Your task to perform on an android device: check android version Image 0: 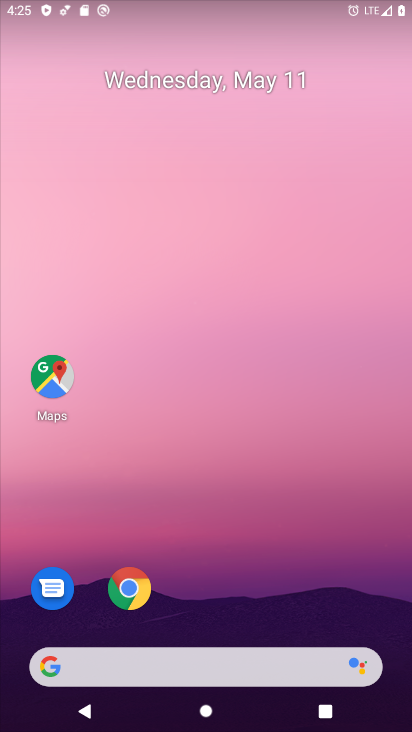
Step 0: drag from (306, 604) to (311, 128)
Your task to perform on an android device: check android version Image 1: 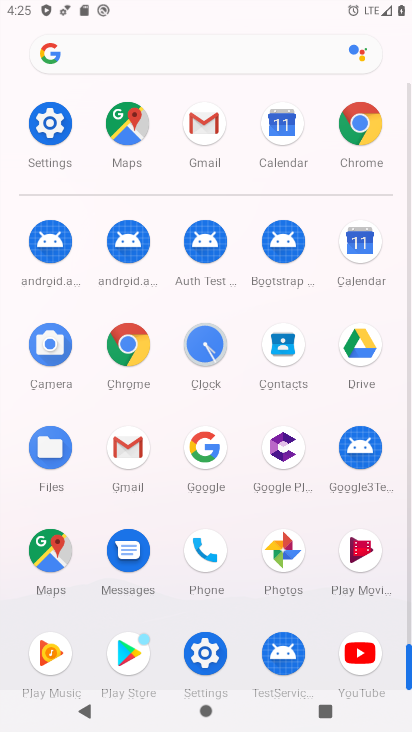
Step 1: click (62, 131)
Your task to perform on an android device: check android version Image 2: 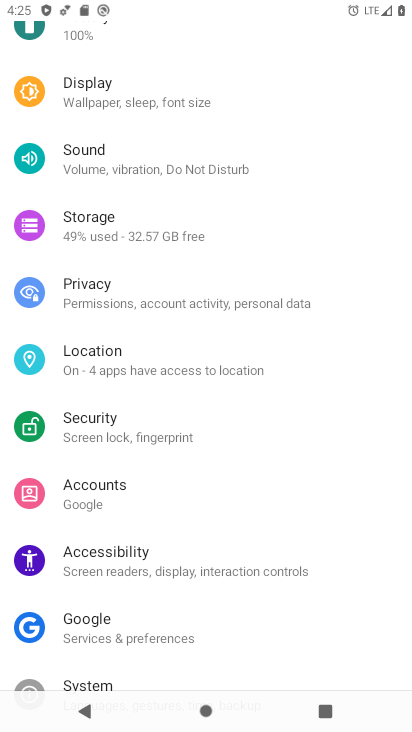
Step 2: drag from (236, 597) to (229, 103)
Your task to perform on an android device: check android version Image 3: 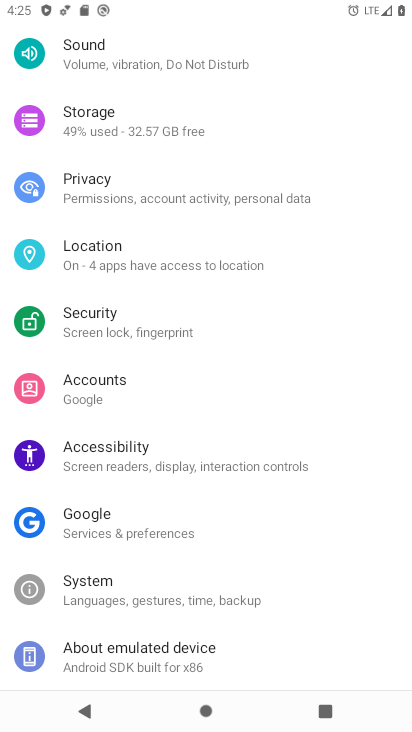
Step 3: click (108, 671)
Your task to perform on an android device: check android version Image 4: 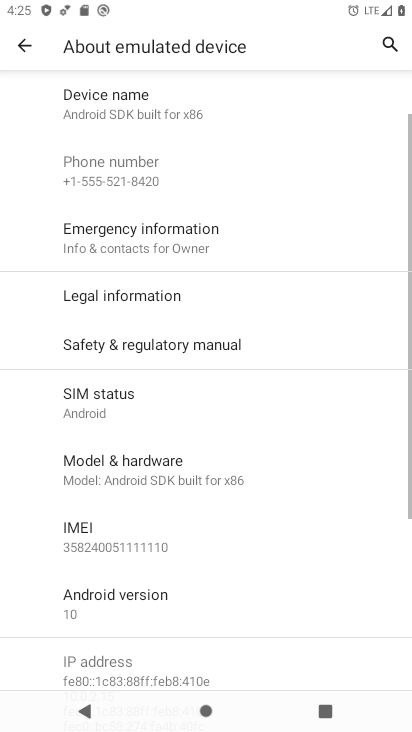
Step 4: drag from (108, 671) to (112, 473)
Your task to perform on an android device: check android version Image 5: 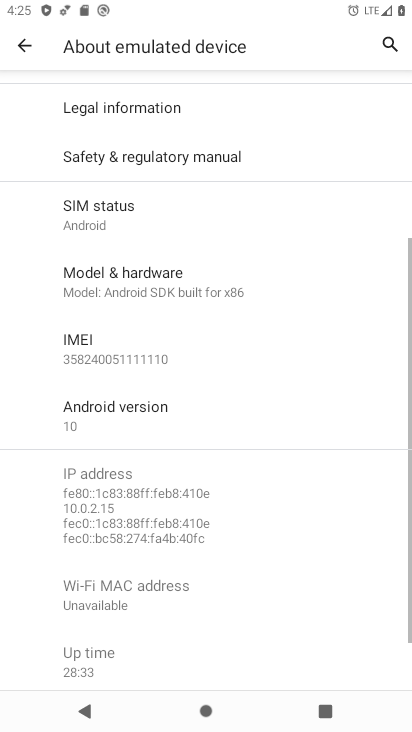
Step 5: click (105, 433)
Your task to perform on an android device: check android version Image 6: 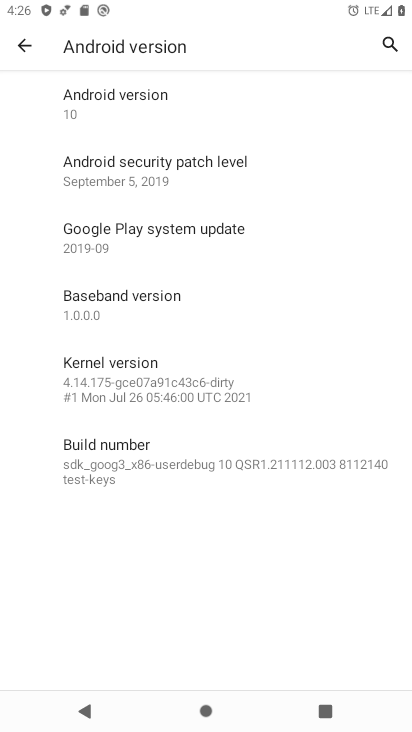
Step 6: task complete